Your task to perform on an android device: Open eBay Image 0: 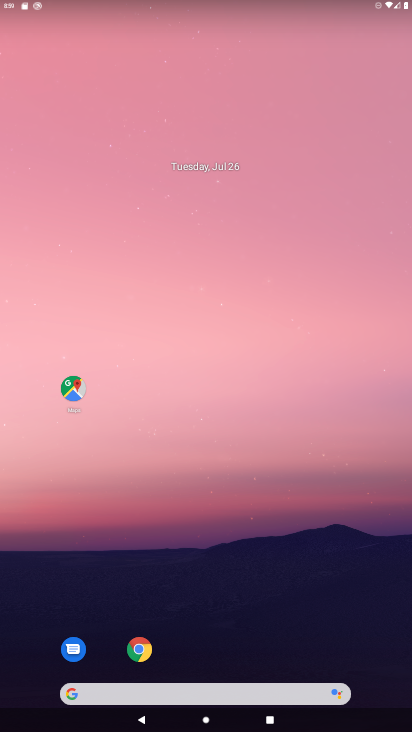
Step 0: click (135, 652)
Your task to perform on an android device: Open eBay Image 1: 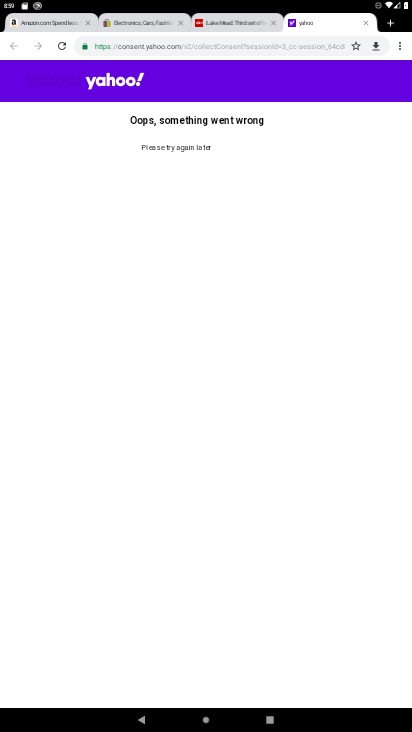
Step 1: click (387, 22)
Your task to perform on an android device: Open eBay Image 2: 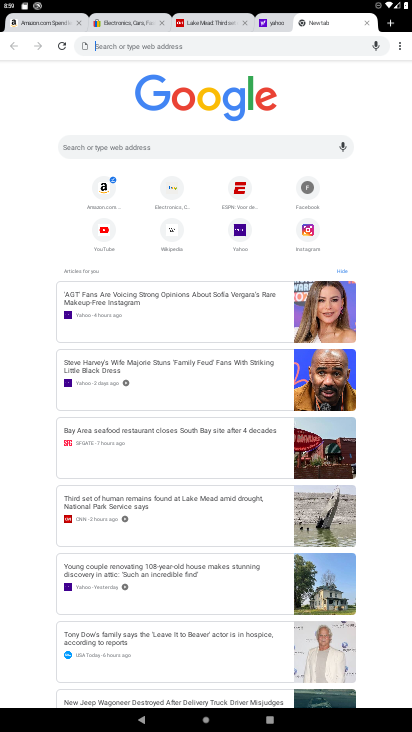
Step 2: click (94, 24)
Your task to perform on an android device: Open eBay Image 3: 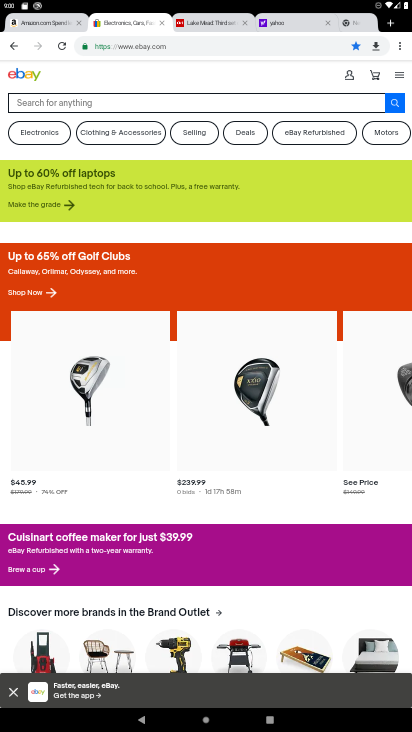
Step 3: task complete